Your task to perform on an android device: What's the weather going to be tomorrow? Image 0: 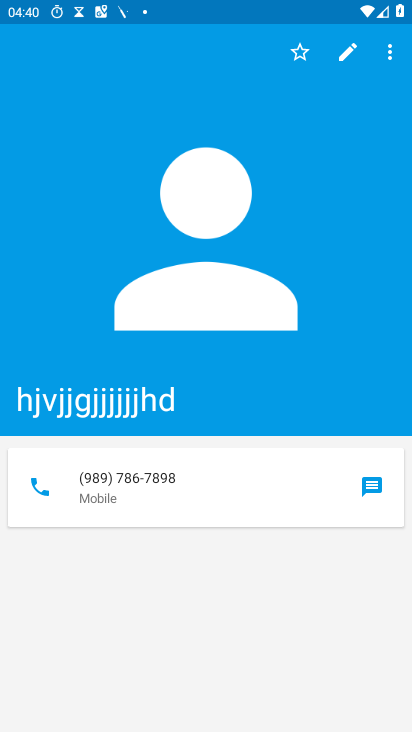
Step 0: press home button
Your task to perform on an android device: What's the weather going to be tomorrow? Image 1: 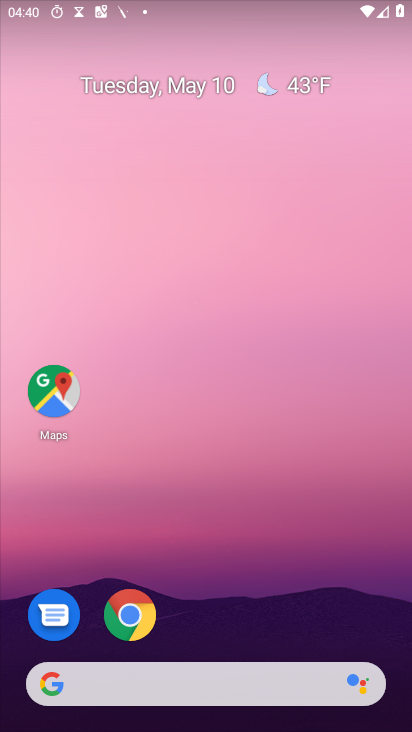
Step 1: drag from (318, 668) to (322, 55)
Your task to perform on an android device: What's the weather going to be tomorrow? Image 2: 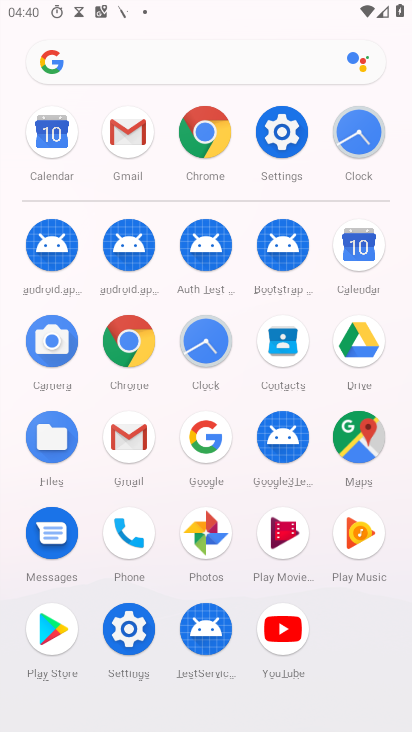
Step 2: click (134, 354)
Your task to perform on an android device: What's the weather going to be tomorrow? Image 3: 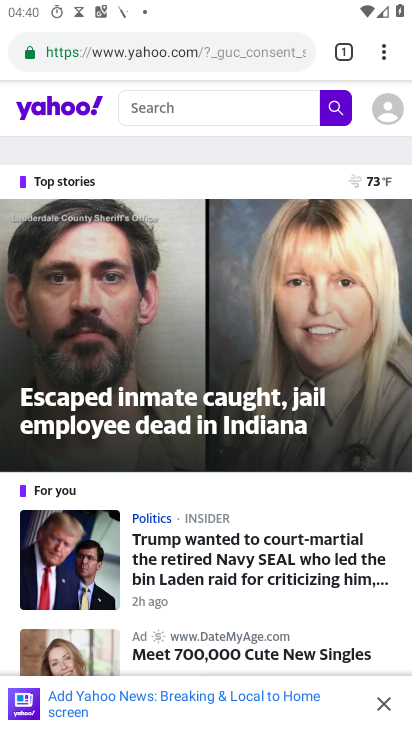
Step 3: click (186, 41)
Your task to perform on an android device: What's the weather going to be tomorrow? Image 4: 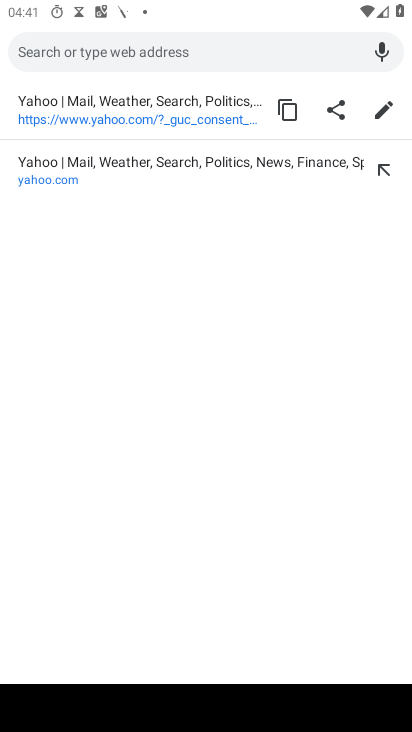
Step 4: type "weather going to be tomorrow"
Your task to perform on an android device: What's the weather going to be tomorrow? Image 5: 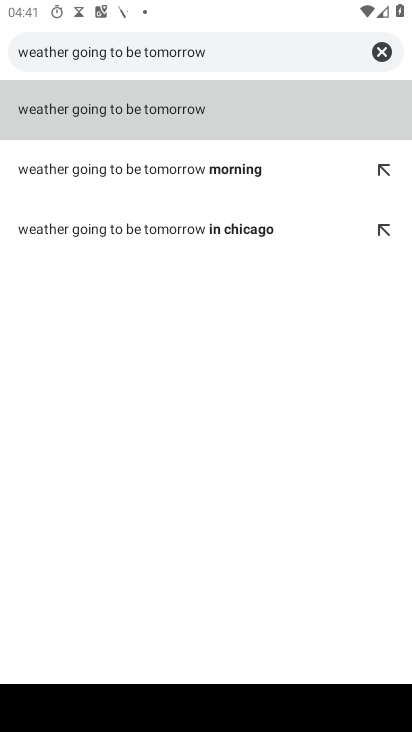
Step 5: click (203, 124)
Your task to perform on an android device: What's the weather going to be tomorrow? Image 6: 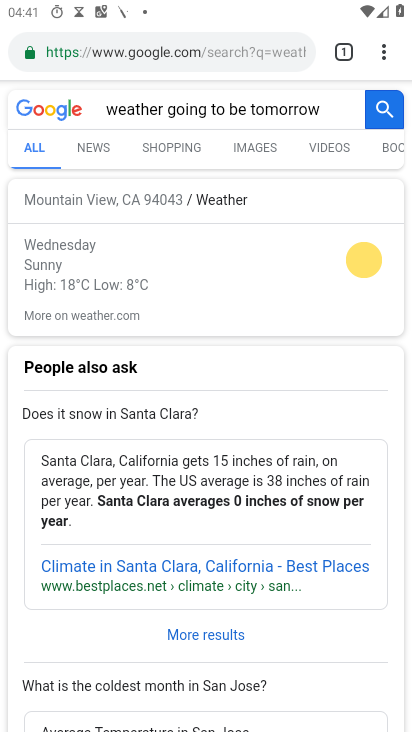
Step 6: task complete